Your task to perform on an android device: turn on priority inbox in the gmail app Image 0: 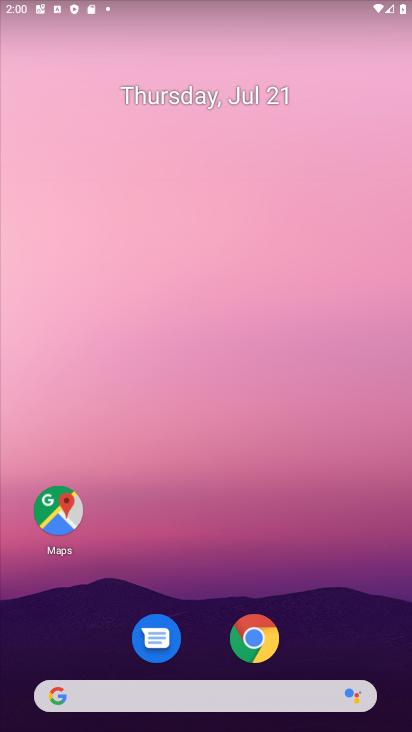
Step 0: drag from (280, 711) to (273, 116)
Your task to perform on an android device: turn on priority inbox in the gmail app Image 1: 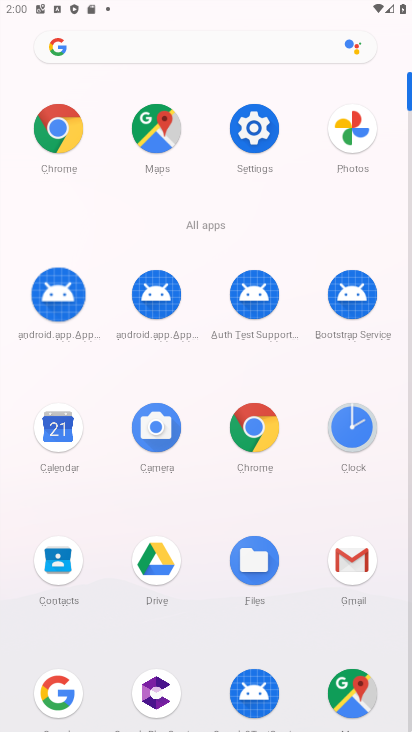
Step 1: click (384, 556)
Your task to perform on an android device: turn on priority inbox in the gmail app Image 2: 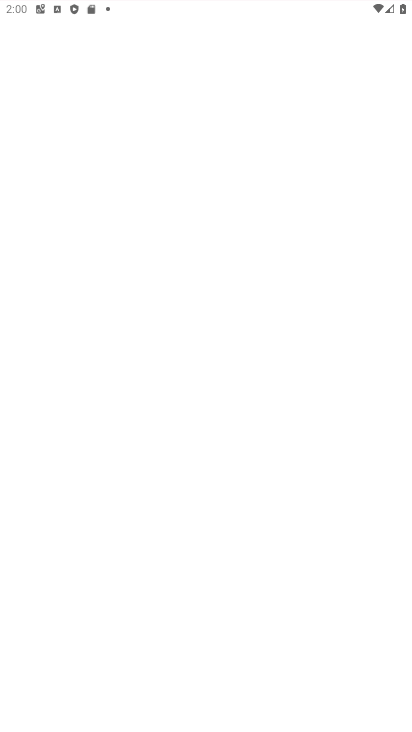
Step 2: click (359, 557)
Your task to perform on an android device: turn on priority inbox in the gmail app Image 3: 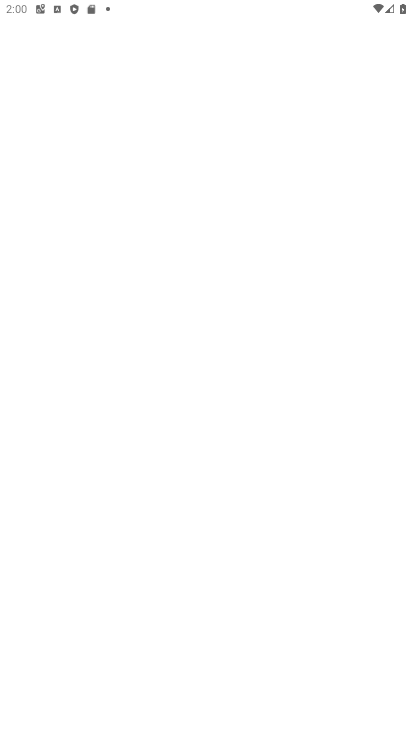
Step 3: click (359, 557)
Your task to perform on an android device: turn on priority inbox in the gmail app Image 4: 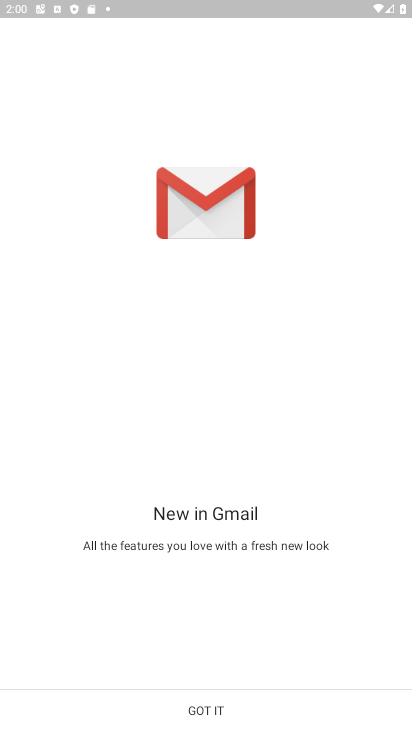
Step 4: click (220, 705)
Your task to perform on an android device: turn on priority inbox in the gmail app Image 5: 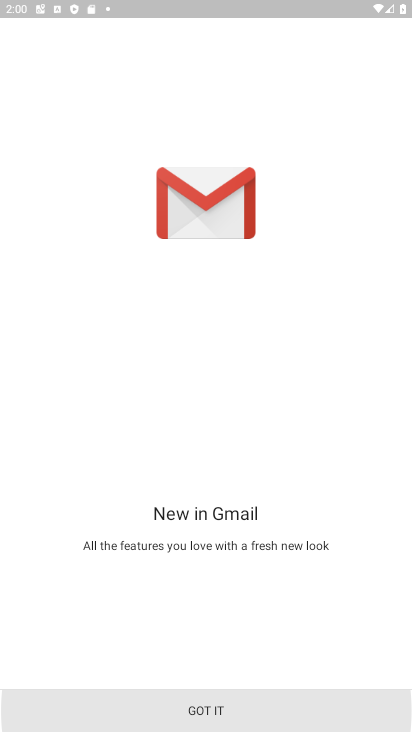
Step 5: click (220, 705)
Your task to perform on an android device: turn on priority inbox in the gmail app Image 6: 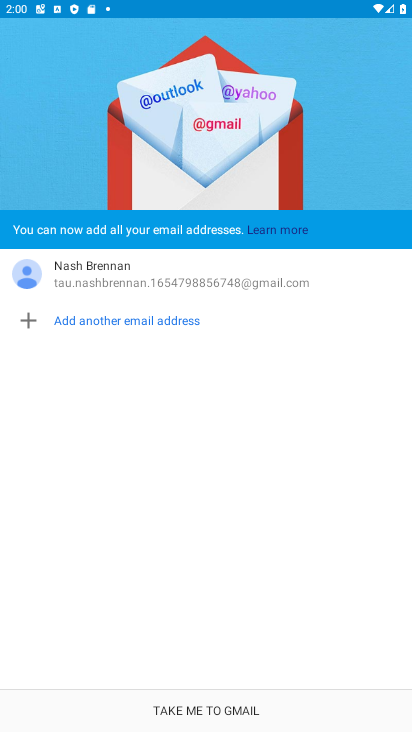
Step 6: click (220, 705)
Your task to perform on an android device: turn on priority inbox in the gmail app Image 7: 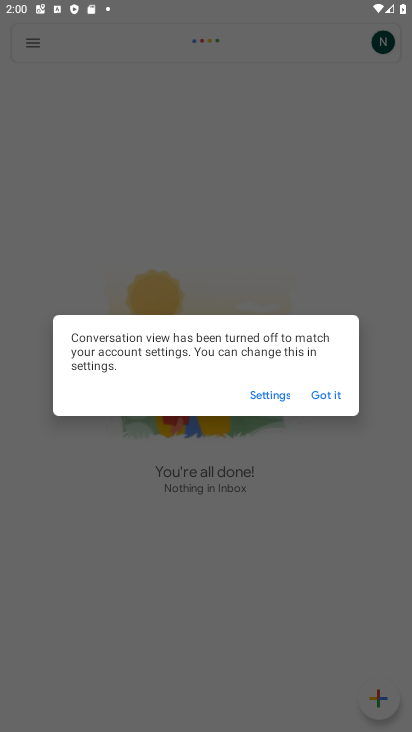
Step 7: click (320, 393)
Your task to perform on an android device: turn on priority inbox in the gmail app Image 8: 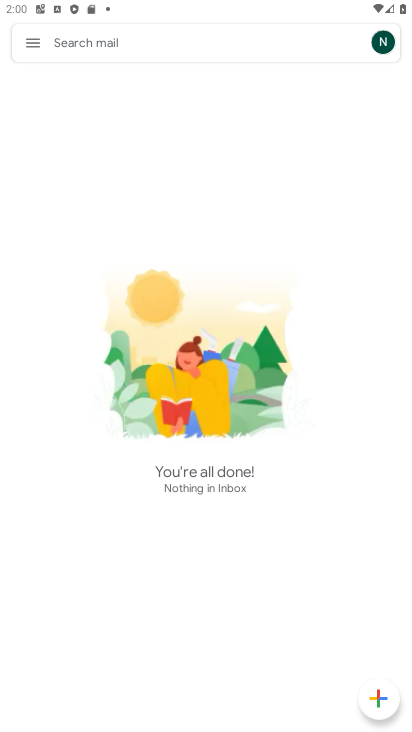
Step 8: click (47, 39)
Your task to perform on an android device: turn on priority inbox in the gmail app Image 9: 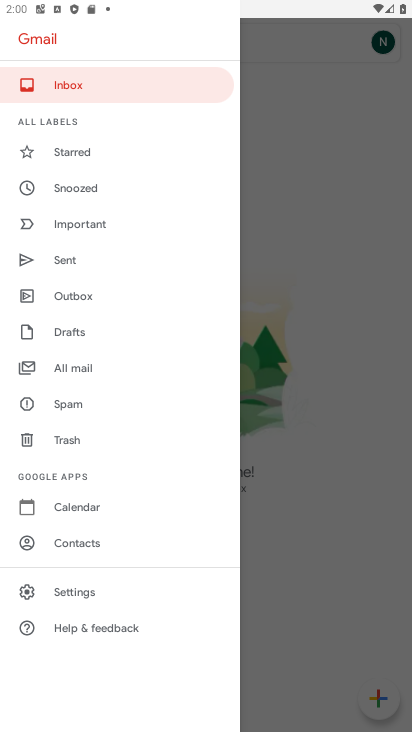
Step 9: click (102, 588)
Your task to perform on an android device: turn on priority inbox in the gmail app Image 10: 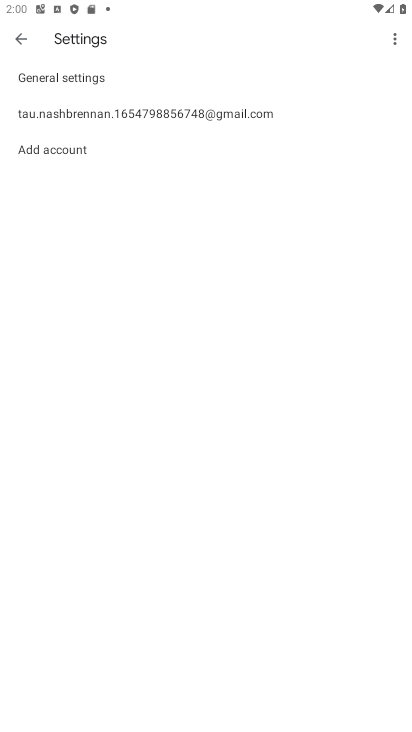
Step 10: click (67, 77)
Your task to perform on an android device: turn on priority inbox in the gmail app Image 11: 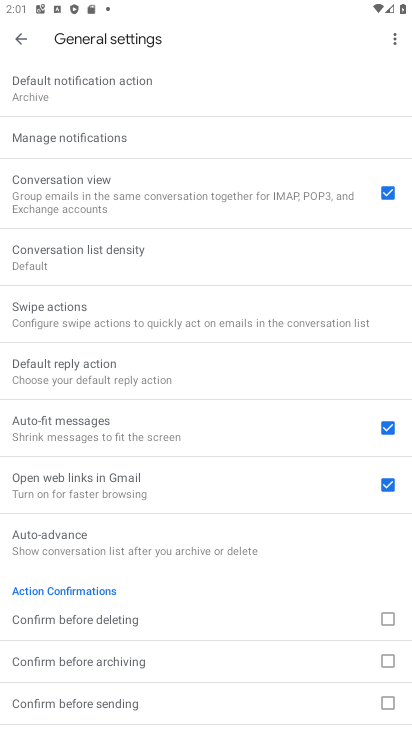
Step 11: drag from (173, 223) to (130, 731)
Your task to perform on an android device: turn on priority inbox in the gmail app Image 12: 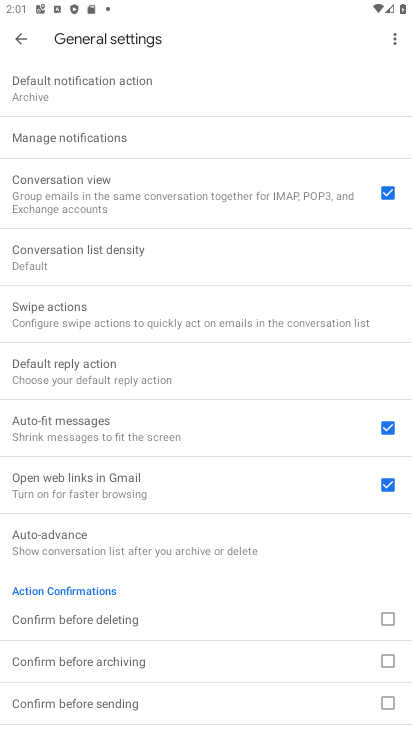
Step 12: drag from (228, 150) to (33, 713)
Your task to perform on an android device: turn on priority inbox in the gmail app Image 13: 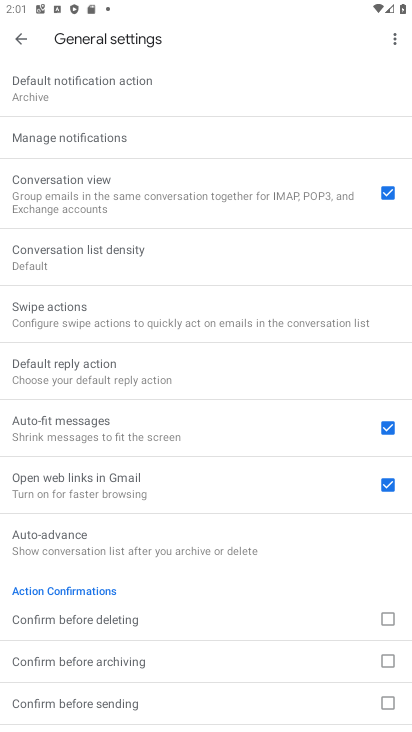
Step 13: drag from (223, 121) to (79, 643)
Your task to perform on an android device: turn on priority inbox in the gmail app Image 14: 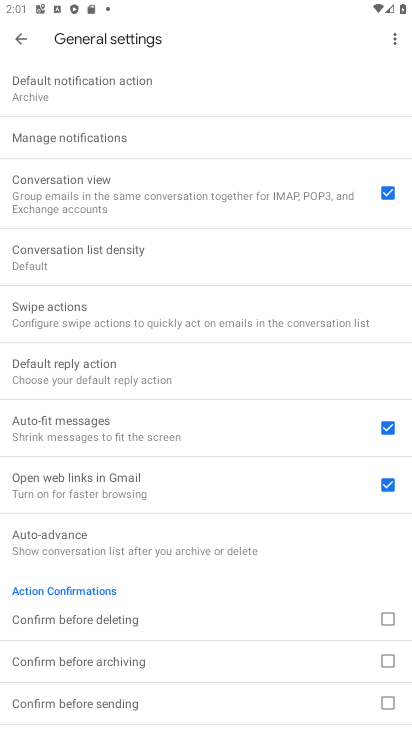
Step 14: drag from (297, 91) to (174, 719)
Your task to perform on an android device: turn on priority inbox in the gmail app Image 15: 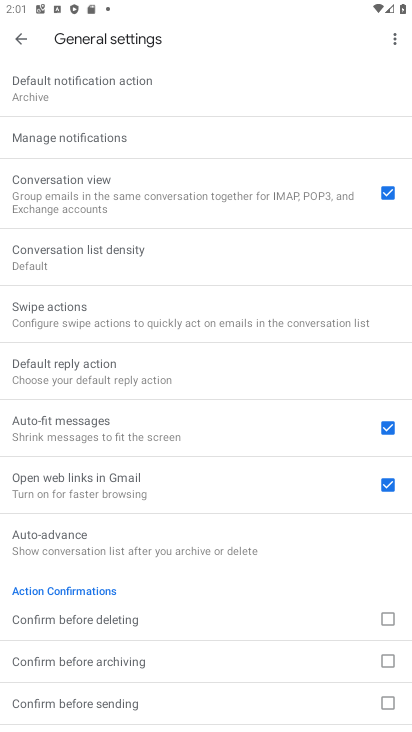
Step 15: drag from (221, 388) to (131, 713)
Your task to perform on an android device: turn on priority inbox in the gmail app Image 16: 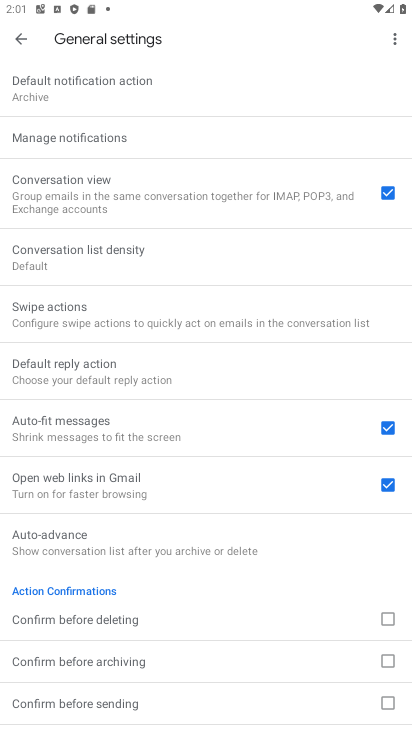
Step 16: drag from (280, 69) to (216, 728)
Your task to perform on an android device: turn on priority inbox in the gmail app Image 17: 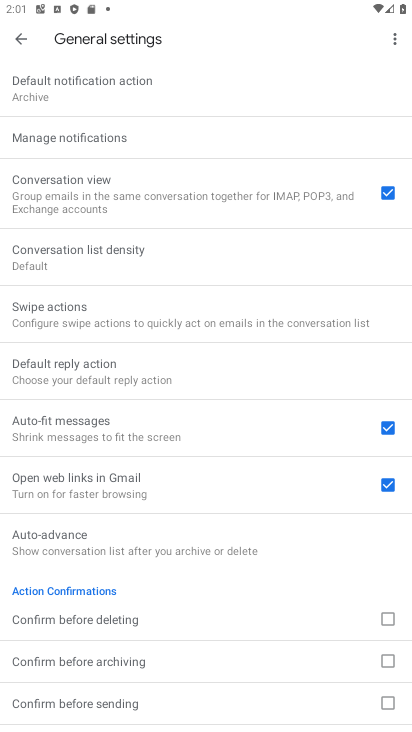
Step 17: drag from (289, 95) to (210, 722)
Your task to perform on an android device: turn on priority inbox in the gmail app Image 18: 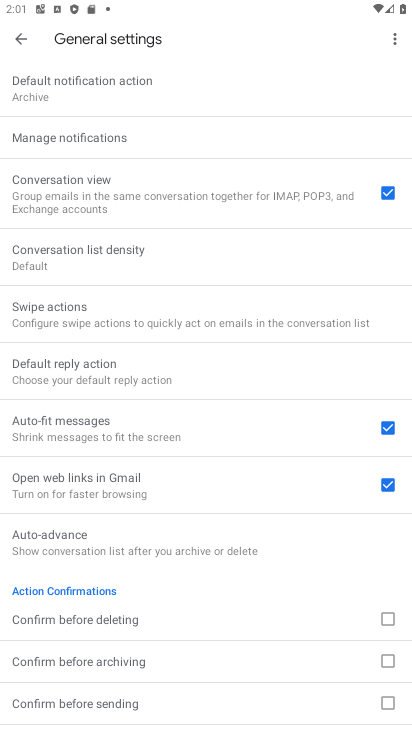
Step 18: drag from (316, 656) to (179, 3)
Your task to perform on an android device: turn on priority inbox in the gmail app Image 19: 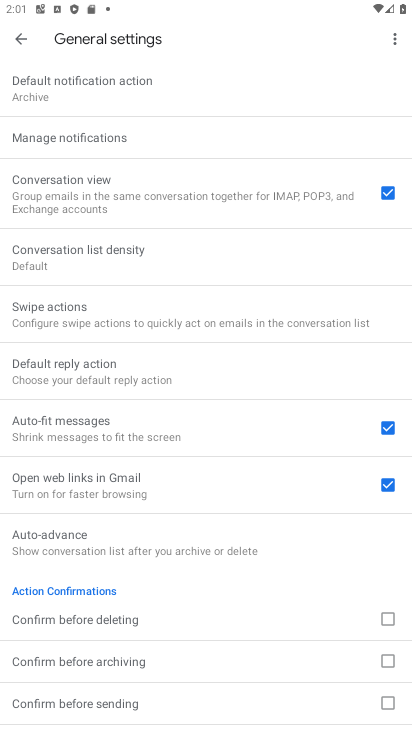
Step 19: click (18, 45)
Your task to perform on an android device: turn on priority inbox in the gmail app Image 20: 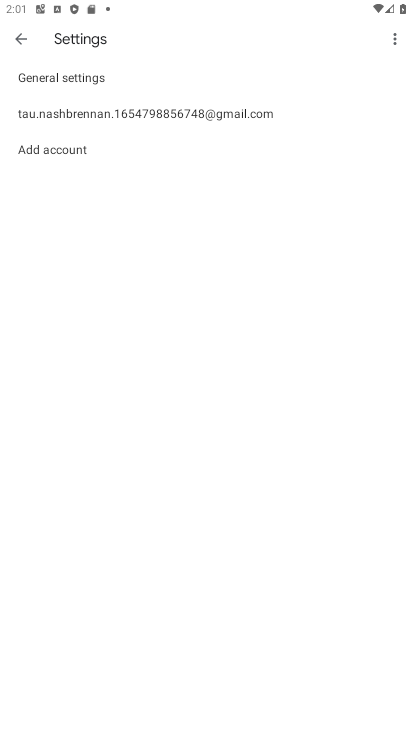
Step 20: click (116, 112)
Your task to perform on an android device: turn on priority inbox in the gmail app Image 21: 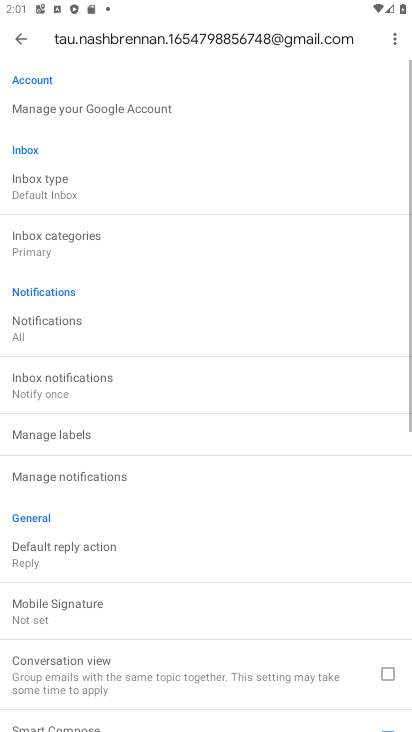
Step 21: click (97, 195)
Your task to perform on an android device: turn on priority inbox in the gmail app Image 22: 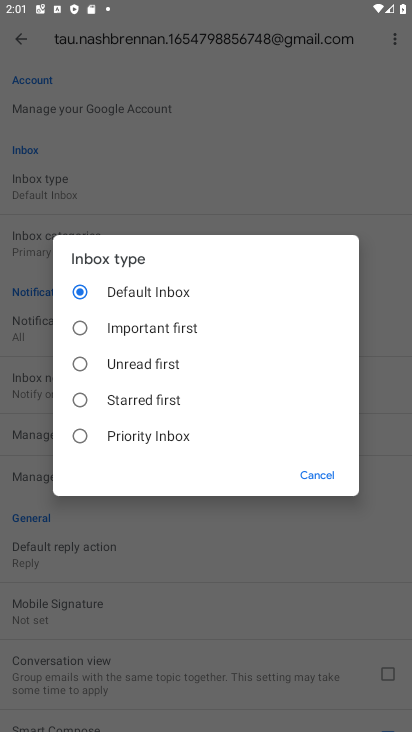
Step 22: click (175, 432)
Your task to perform on an android device: turn on priority inbox in the gmail app Image 23: 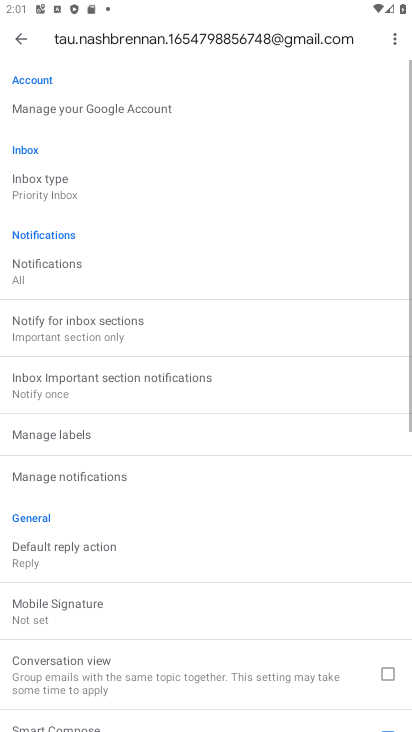
Step 23: task complete